Your task to perform on an android device: allow notifications from all sites in the chrome app Image 0: 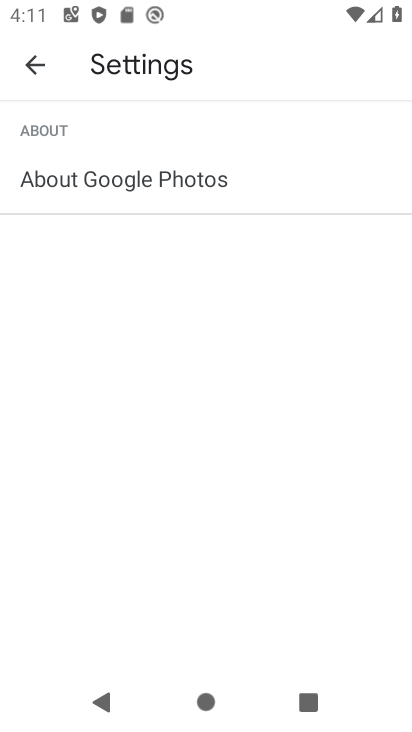
Step 0: press home button
Your task to perform on an android device: allow notifications from all sites in the chrome app Image 1: 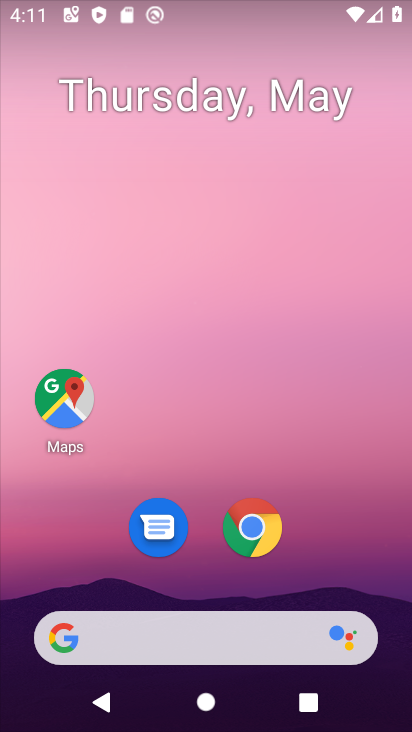
Step 1: drag from (377, 570) to (326, 36)
Your task to perform on an android device: allow notifications from all sites in the chrome app Image 2: 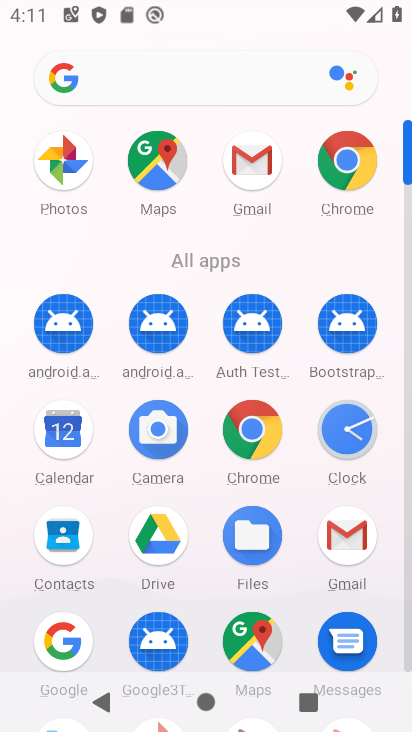
Step 2: click (322, 180)
Your task to perform on an android device: allow notifications from all sites in the chrome app Image 3: 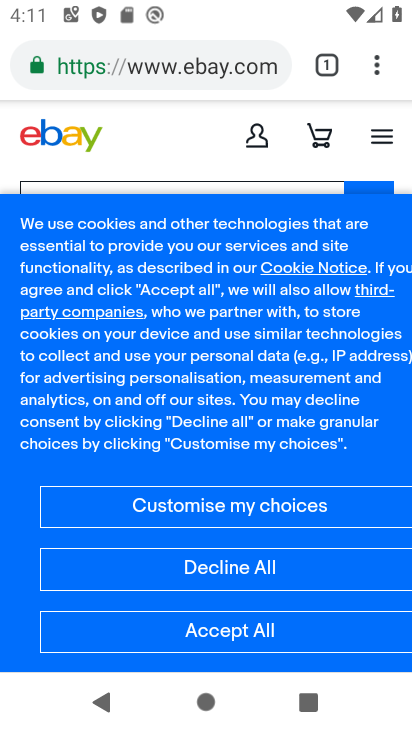
Step 3: drag from (389, 74) to (209, 564)
Your task to perform on an android device: allow notifications from all sites in the chrome app Image 4: 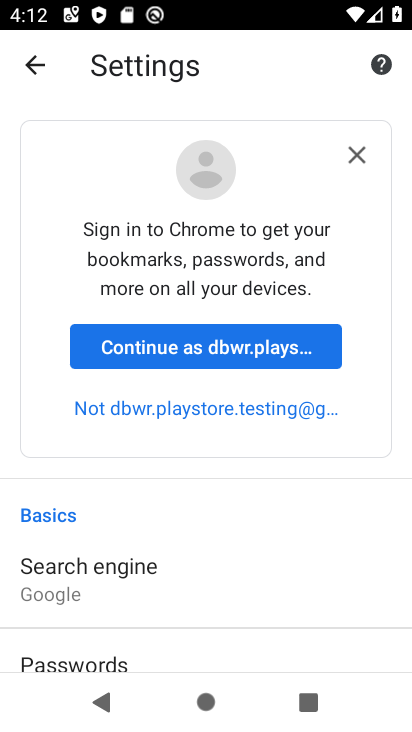
Step 4: drag from (294, 603) to (235, 196)
Your task to perform on an android device: allow notifications from all sites in the chrome app Image 5: 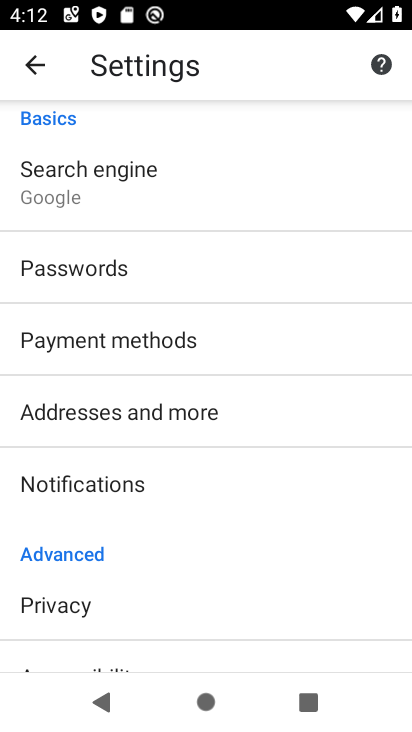
Step 5: drag from (235, 591) to (179, 140)
Your task to perform on an android device: allow notifications from all sites in the chrome app Image 6: 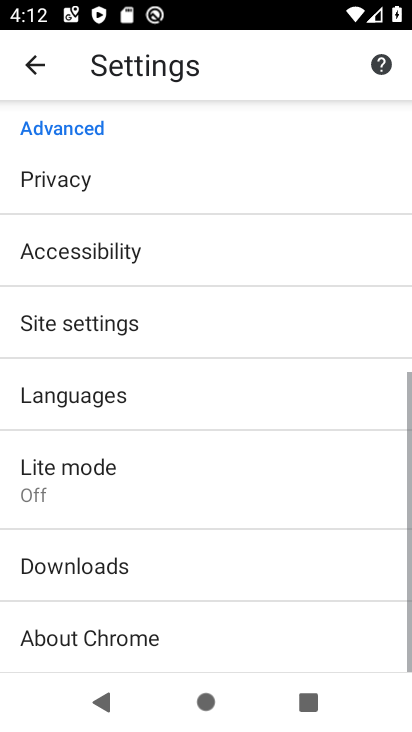
Step 6: click (98, 315)
Your task to perform on an android device: allow notifications from all sites in the chrome app Image 7: 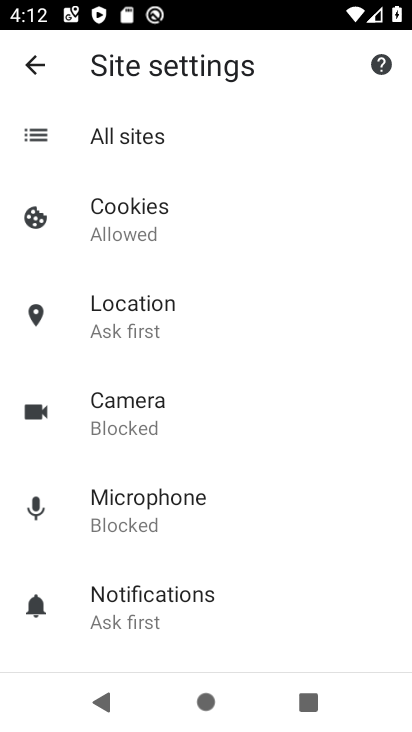
Step 7: task complete